Your task to perform on an android device: check data usage Image 0: 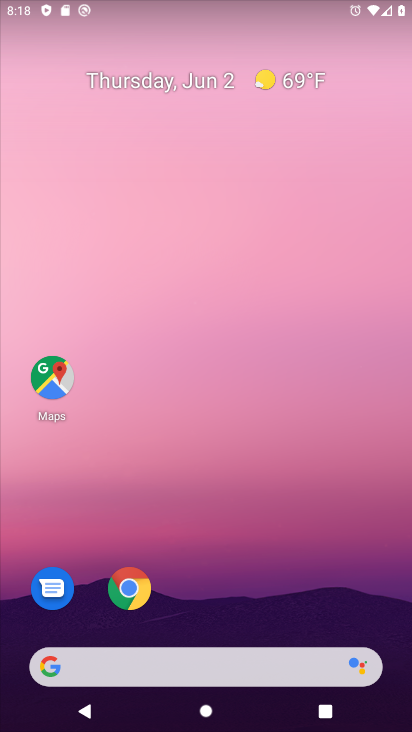
Step 0: drag from (229, 716) to (216, 67)
Your task to perform on an android device: check data usage Image 1: 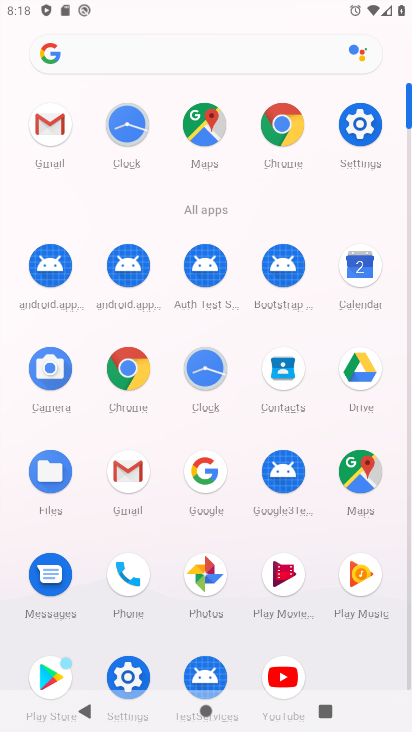
Step 1: click (351, 124)
Your task to perform on an android device: check data usage Image 2: 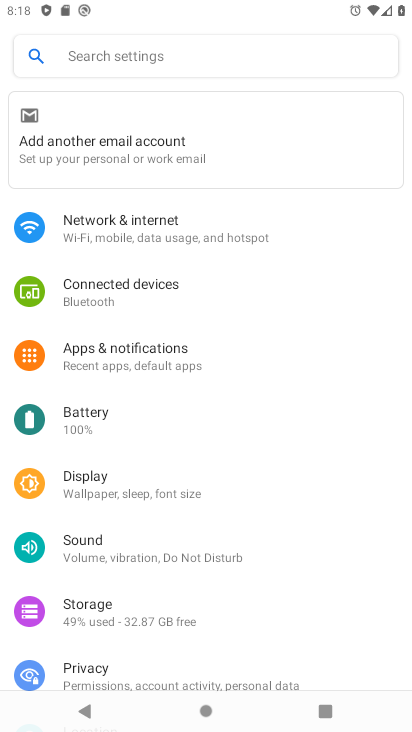
Step 2: click (98, 223)
Your task to perform on an android device: check data usage Image 3: 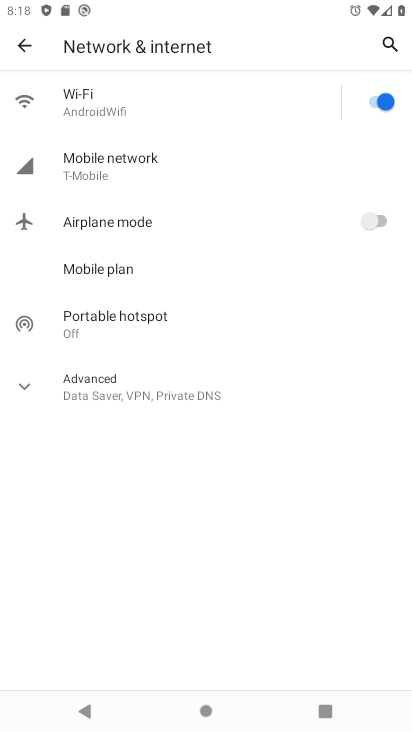
Step 3: click (75, 158)
Your task to perform on an android device: check data usage Image 4: 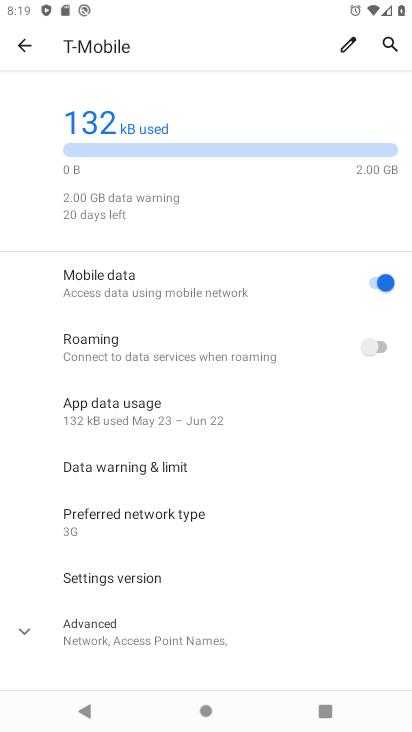
Step 4: click (105, 409)
Your task to perform on an android device: check data usage Image 5: 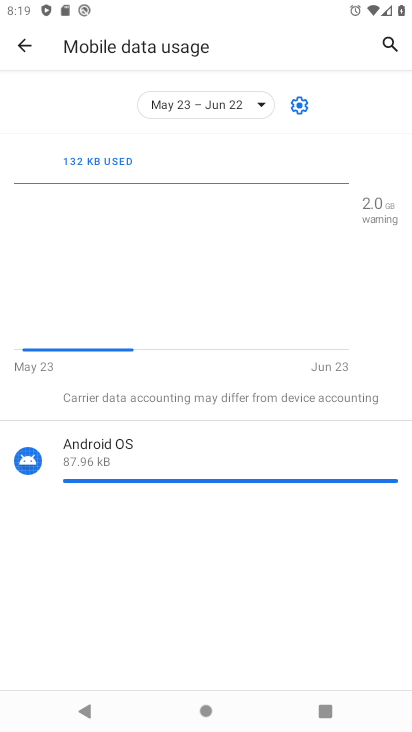
Step 5: task complete